Your task to perform on an android device: Go to Google maps Image 0: 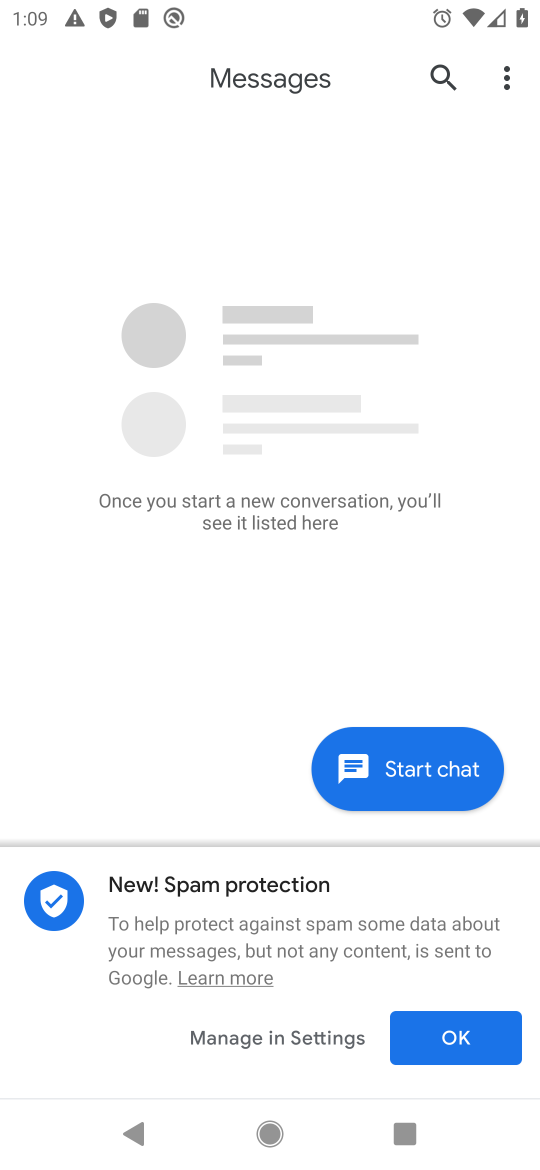
Step 0: press home button
Your task to perform on an android device: Go to Google maps Image 1: 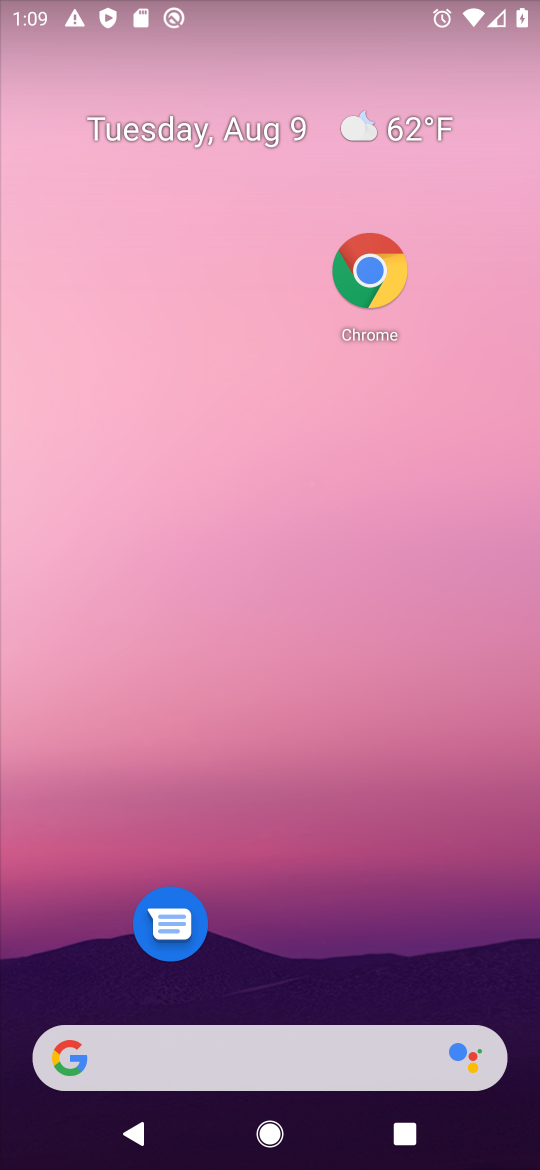
Step 1: drag from (340, 955) to (392, 11)
Your task to perform on an android device: Go to Google maps Image 2: 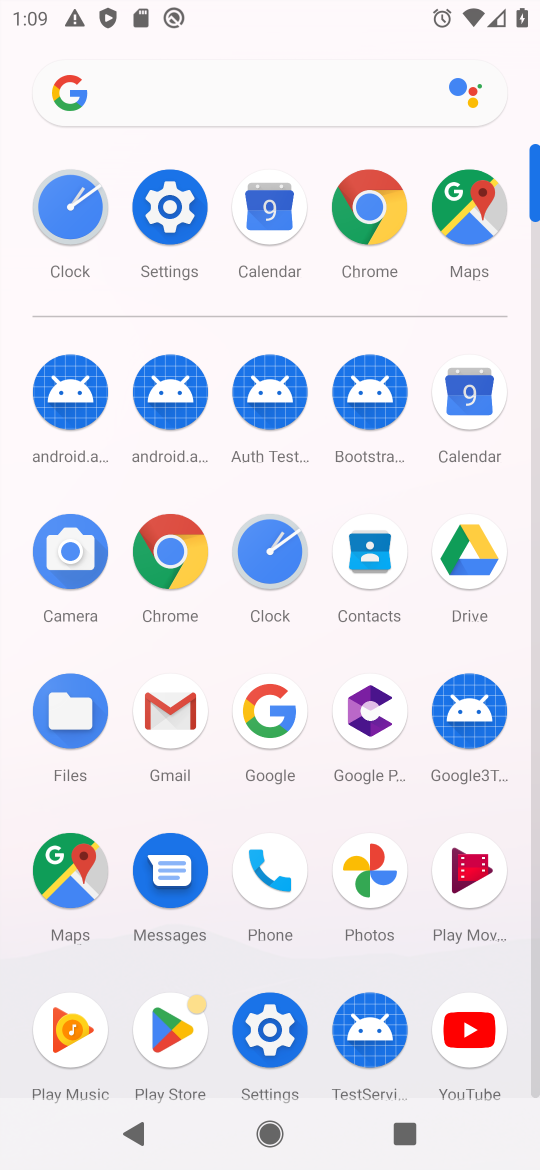
Step 2: click (488, 244)
Your task to perform on an android device: Go to Google maps Image 3: 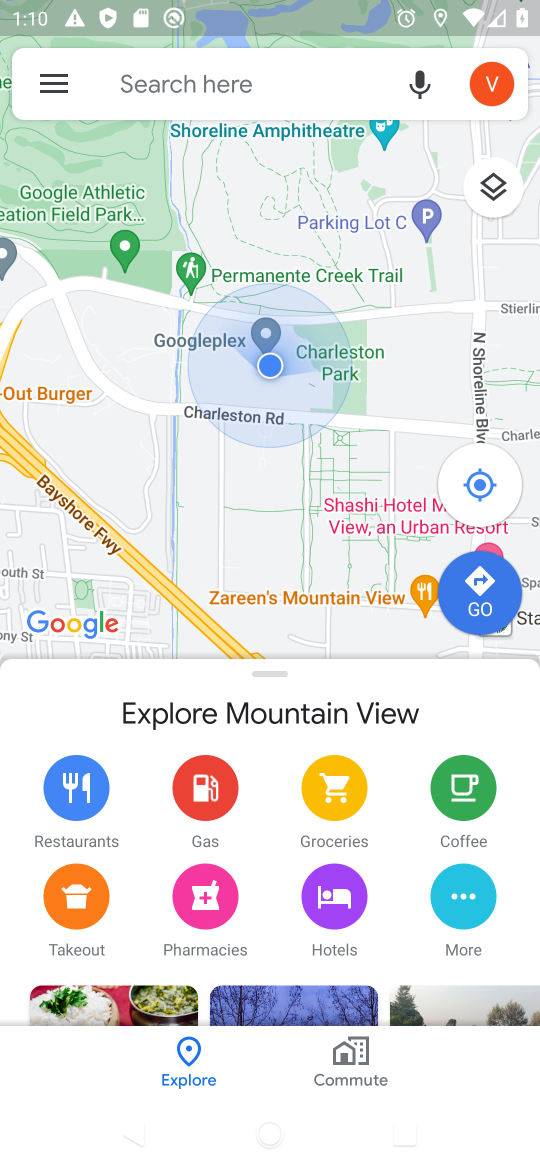
Step 3: task complete